Your task to perform on an android device: see tabs open on other devices in the chrome app Image 0: 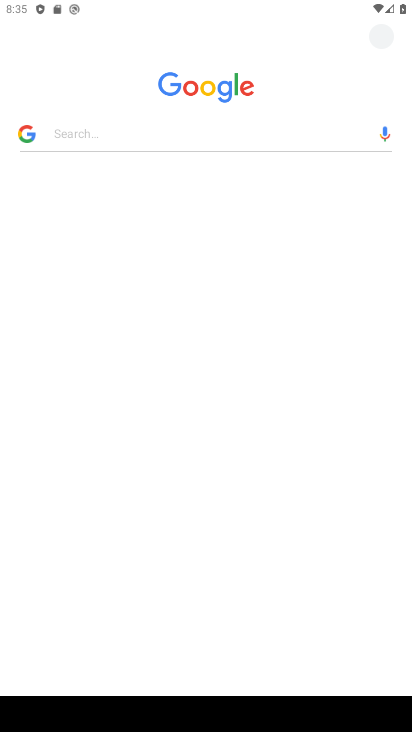
Step 0: press home button
Your task to perform on an android device: see tabs open on other devices in the chrome app Image 1: 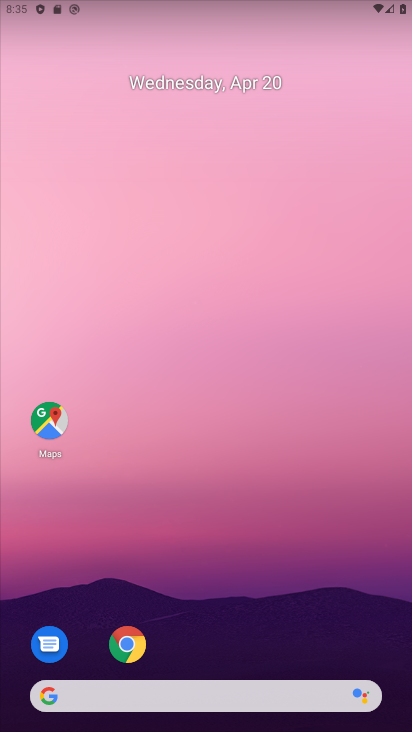
Step 1: drag from (326, 505) to (278, 106)
Your task to perform on an android device: see tabs open on other devices in the chrome app Image 2: 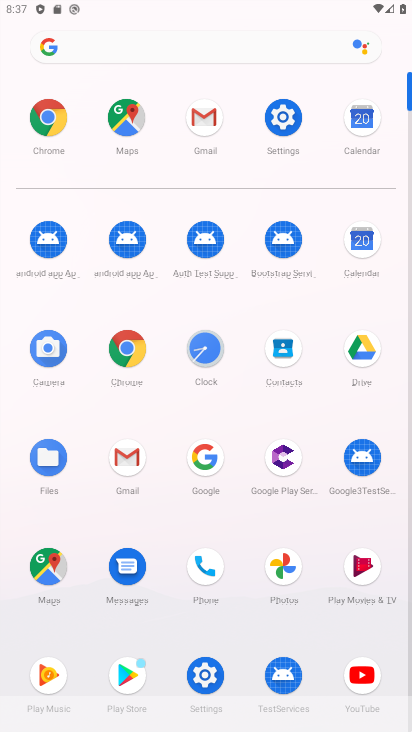
Step 2: click (119, 361)
Your task to perform on an android device: see tabs open on other devices in the chrome app Image 3: 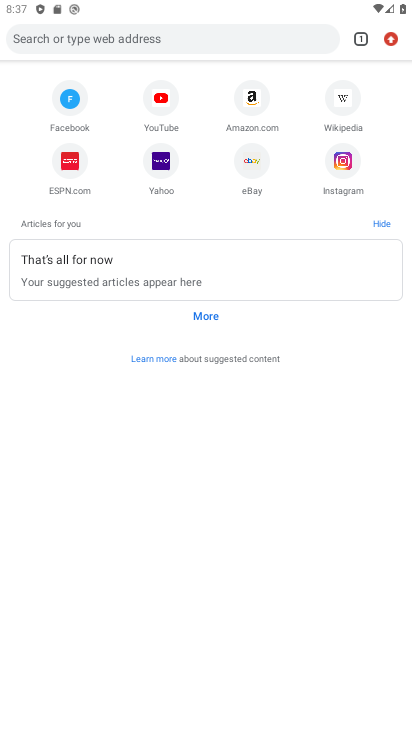
Step 3: task complete